Your task to perform on an android device: Find coffee shops on Maps Image 0: 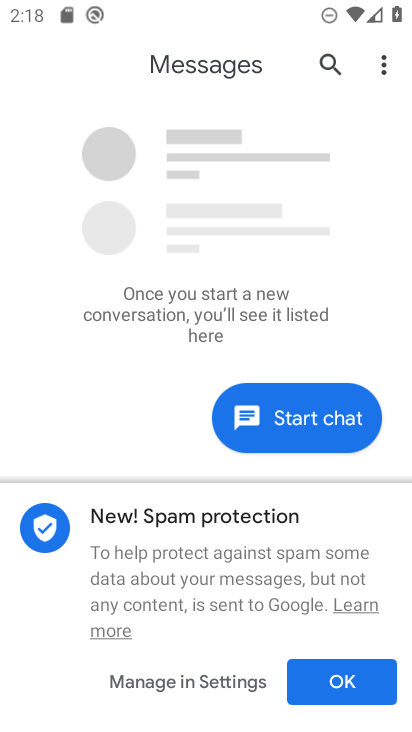
Step 0: press home button
Your task to perform on an android device: Find coffee shops on Maps Image 1: 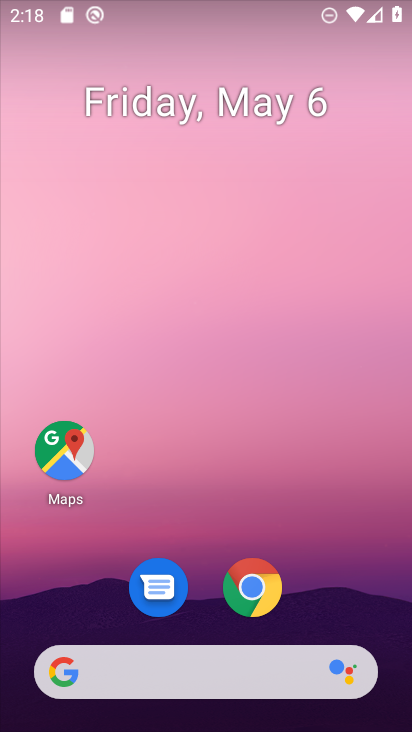
Step 1: click (65, 441)
Your task to perform on an android device: Find coffee shops on Maps Image 2: 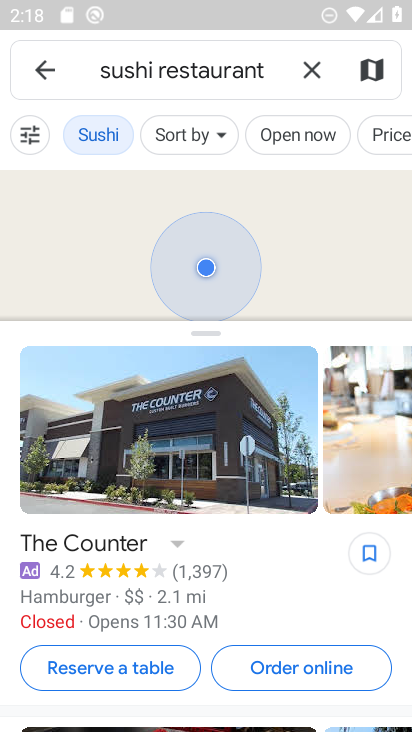
Step 2: click (312, 65)
Your task to perform on an android device: Find coffee shops on Maps Image 3: 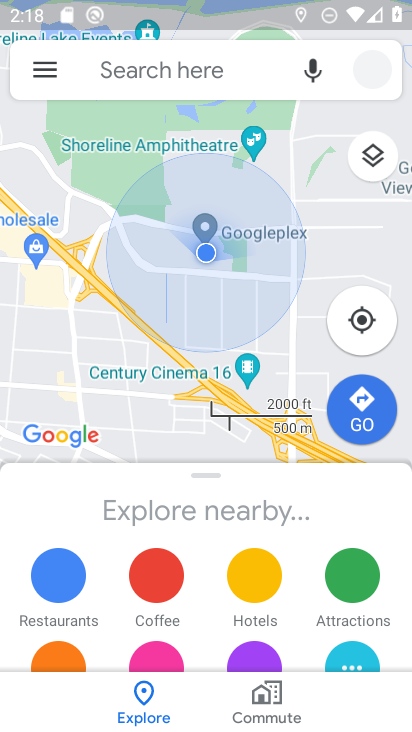
Step 3: click (198, 67)
Your task to perform on an android device: Find coffee shops on Maps Image 4: 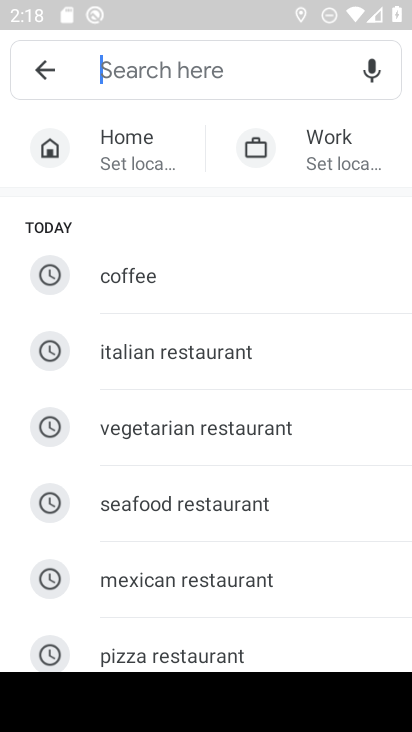
Step 4: click (134, 268)
Your task to perform on an android device: Find coffee shops on Maps Image 5: 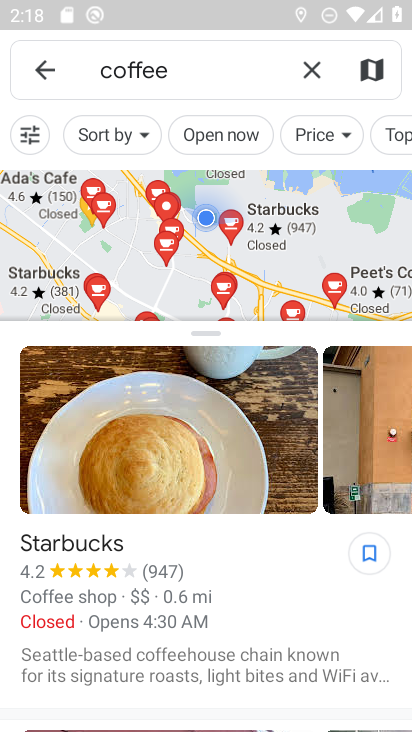
Step 5: task complete